Your task to perform on an android device: turn on wifi Image 0: 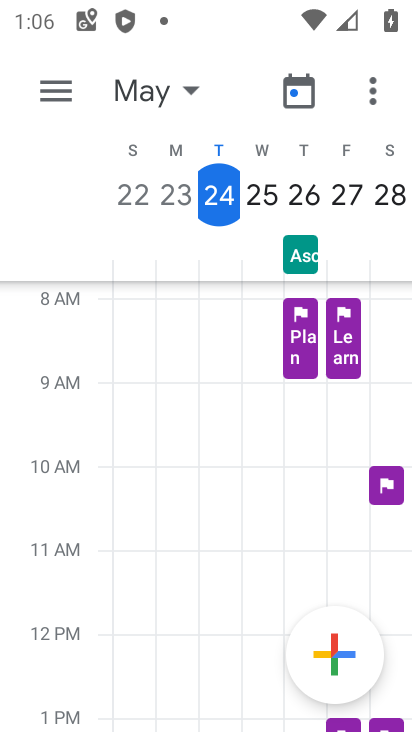
Step 0: press home button
Your task to perform on an android device: turn on wifi Image 1: 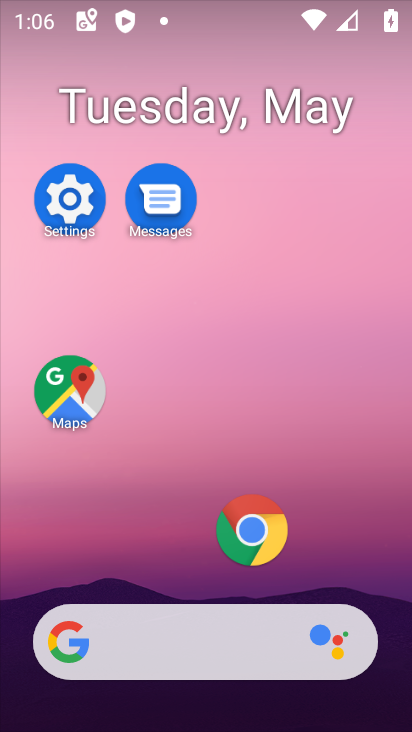
Step 1: drag from (179, 573) to (237, 234)
Your task to perform on an android device: turn on wifi Image 2: 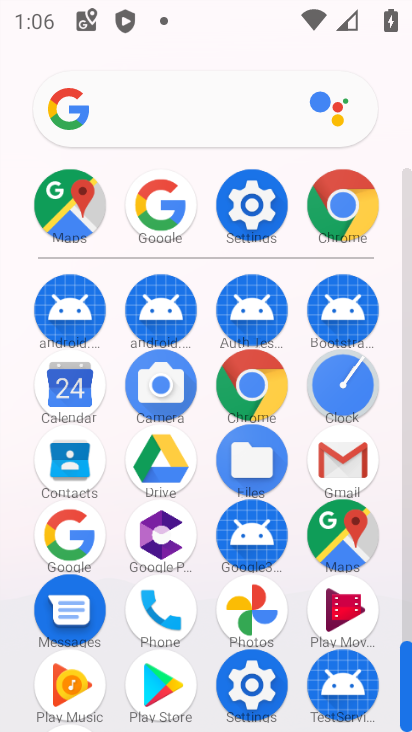
Step 2: click (267, 698)
Your task to perform on an android device: turn on wifi Image 3: 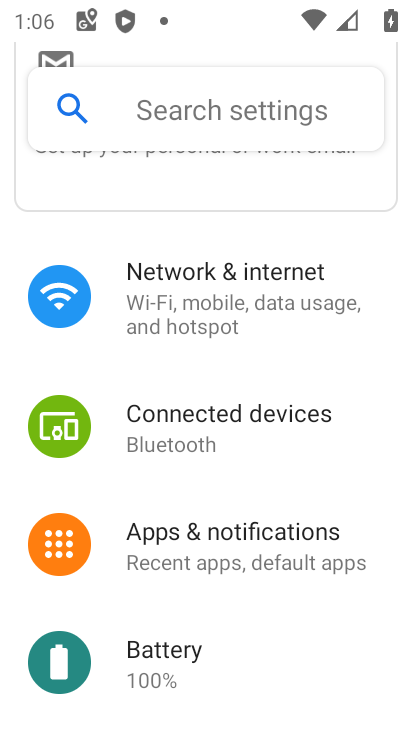
Step 3: click (190, 300)
Your task to perform on an android device: turn on wifi Image 4: 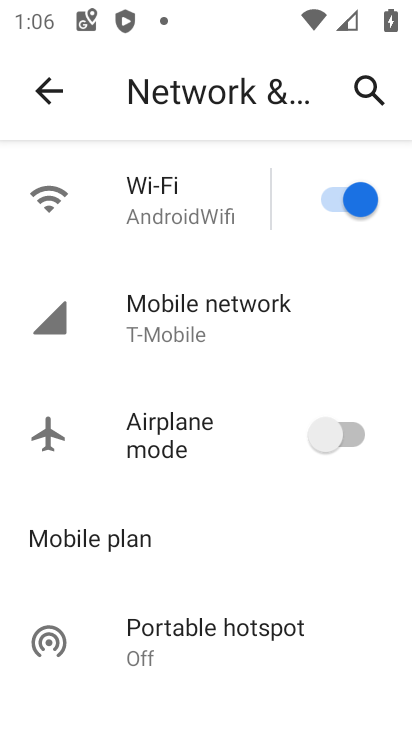
Step 4: task complete